Your task to perform on an android device: What's on the menu at Panera? Image 0: 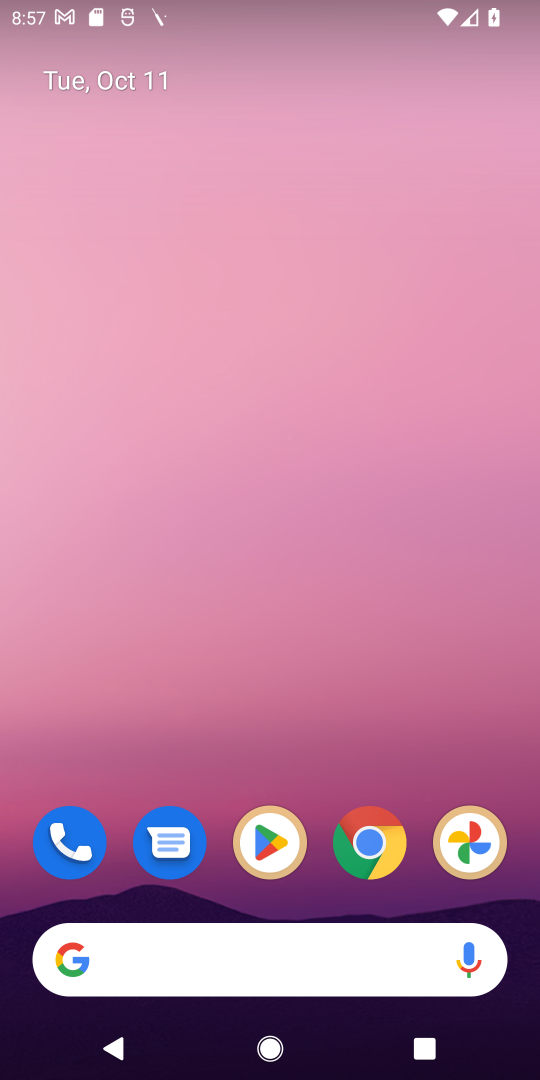
Step 0: click (383, 867)
Your task to perform on an android device: What's on the menu at Panera? Image 1: 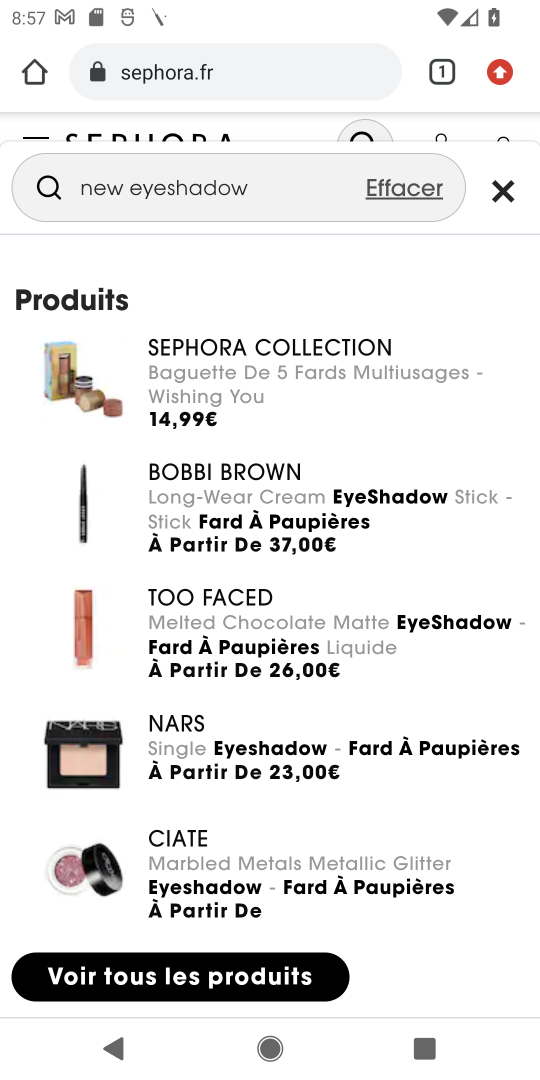
Step 1: click (159, 70)
Your task to perform on an android device: What's on the menu at Panera? Image 2: 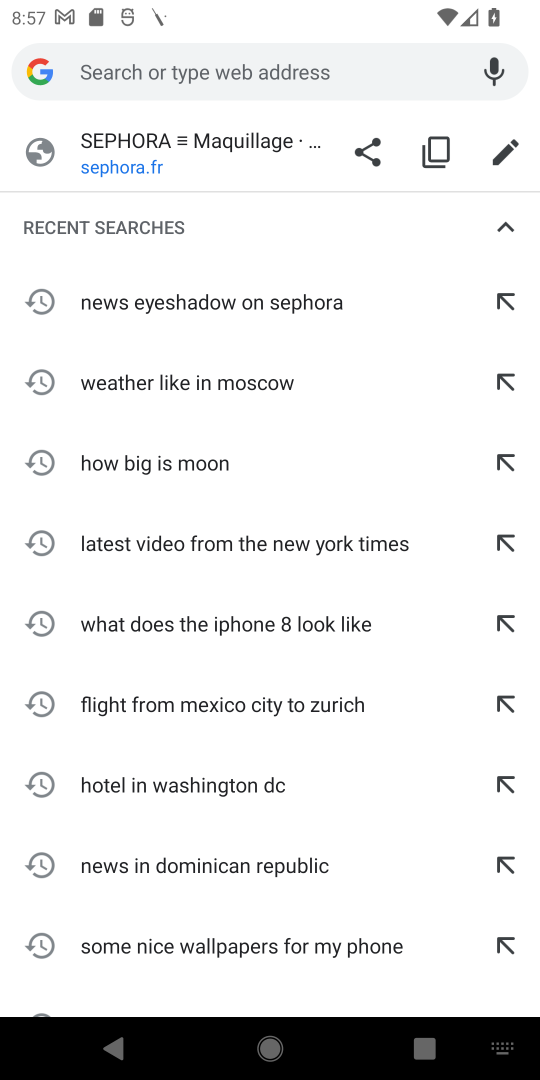
Step 2: type "menu at panera"
Your task to perform on an android device: What's on the menu at Panera? Image 3: 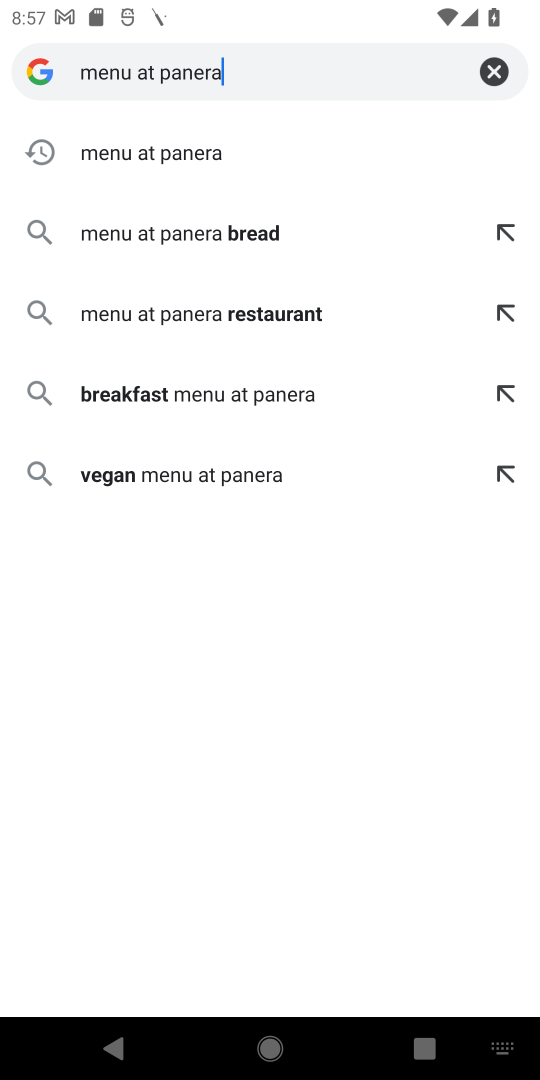
Step 3: click (200, 153)
Your task to perform on an android device: What's on the menu at Panera? Image 4: 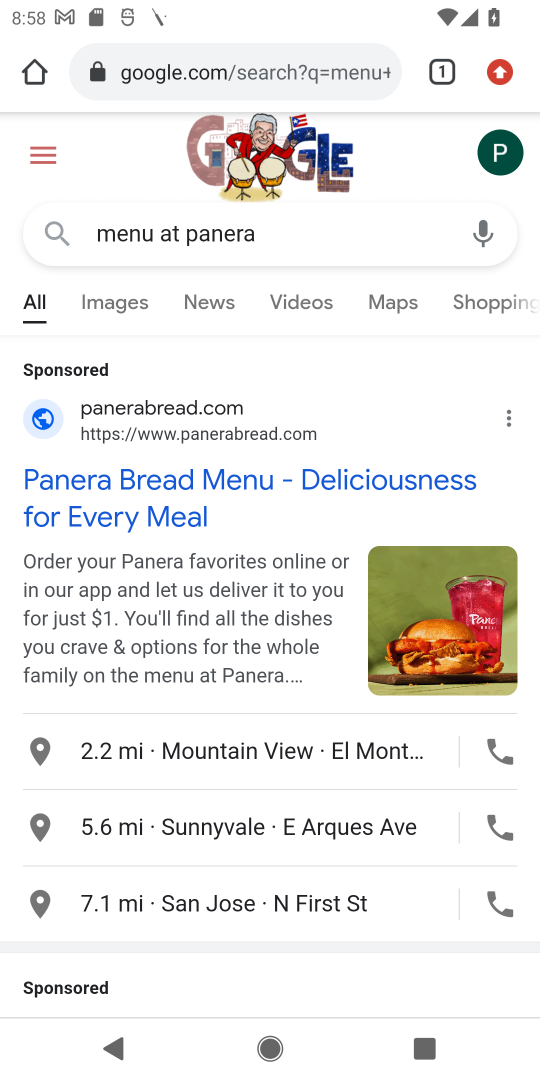
Step 4: drag from (172, 676) to (290, 232)
Your task to perform on an android device: What's on the menu at Panera? Image 5: 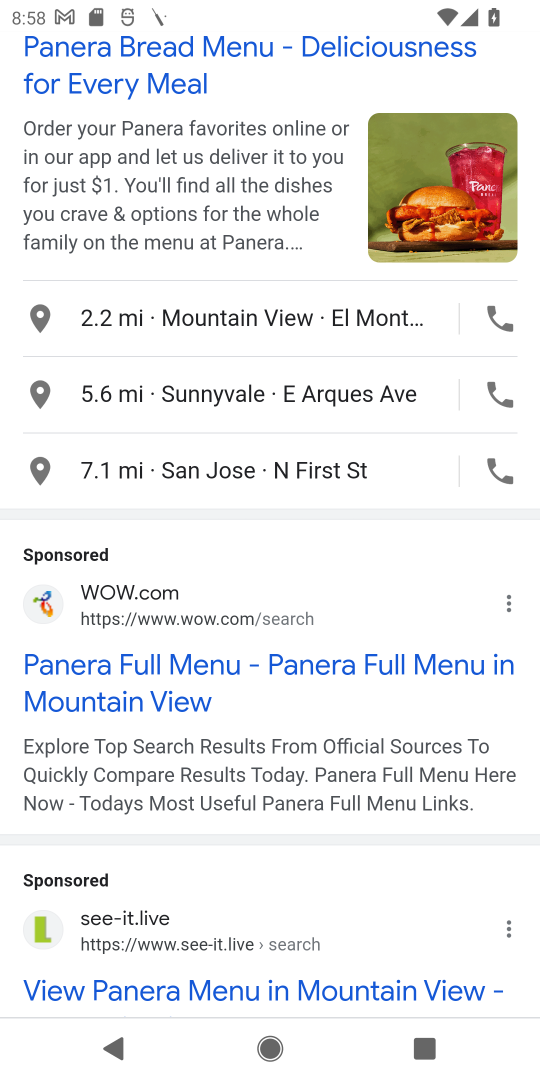
Step 5: click (136, 665)
Your task to perform on an android device: What's on the menu at Panera? Image 6: 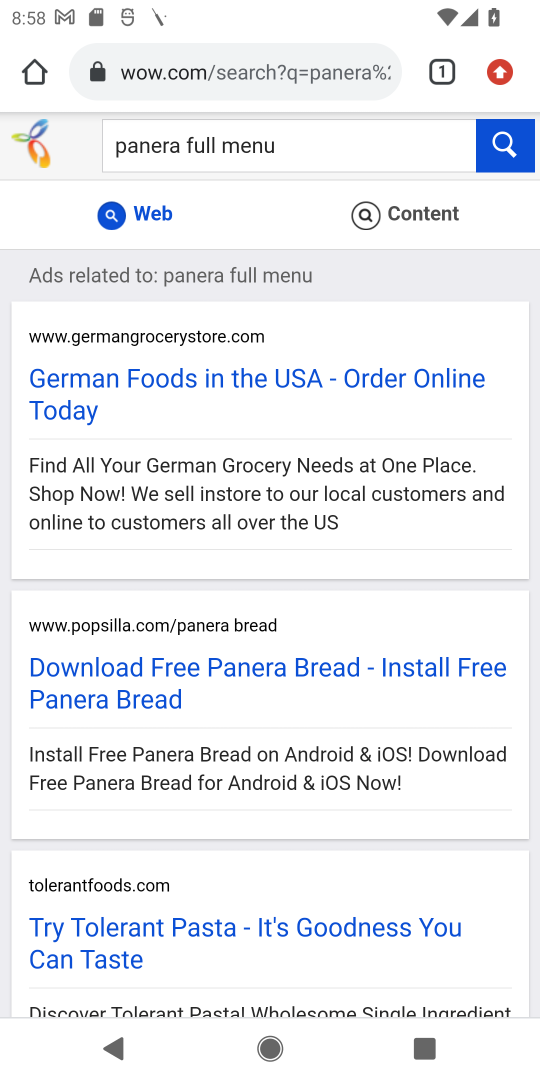
Step 6: drag from (192, 733) to (329, 288)
Your task to perform on an android device: What's on the menu at Panera? Image 7: 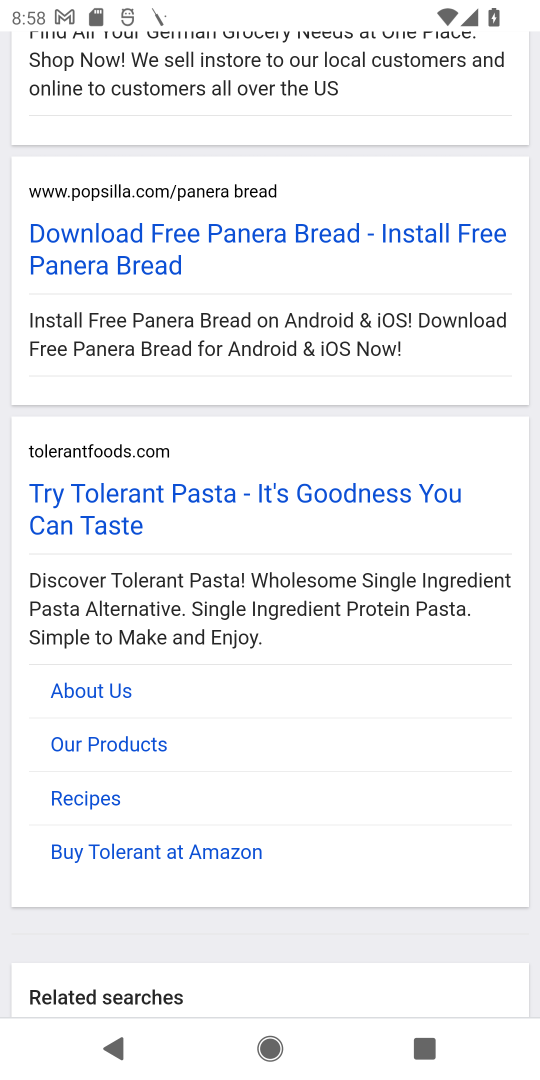
Step 7: drag from (366, 514) to (446, 164)
Your task to perform on an android device: What's on the menu at Panera? Image 8: 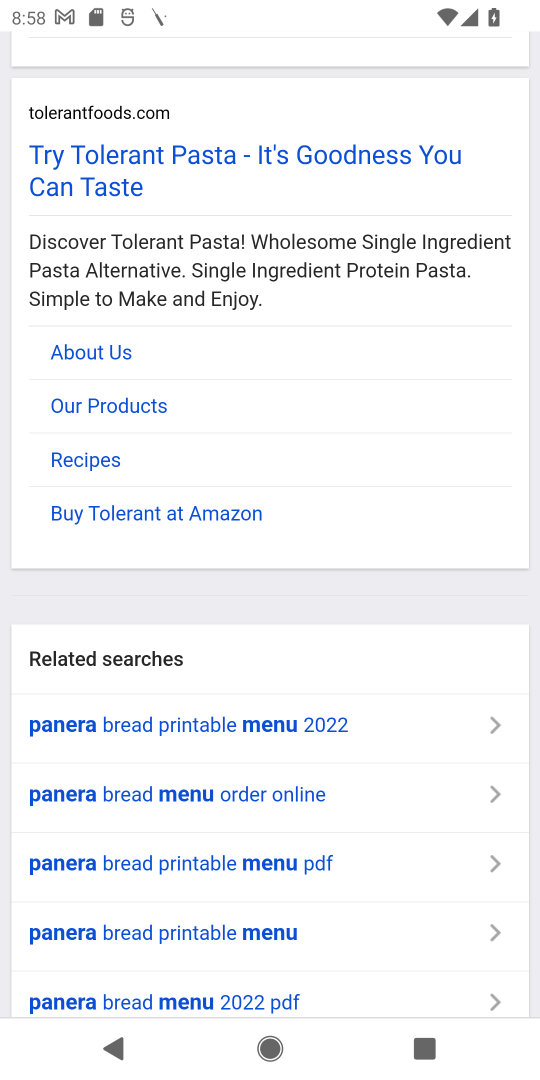
Step 8: drag from (354, 392) to (335, 977)
Your task to perform on an android device: What's on the menu at Panera? Image 9: 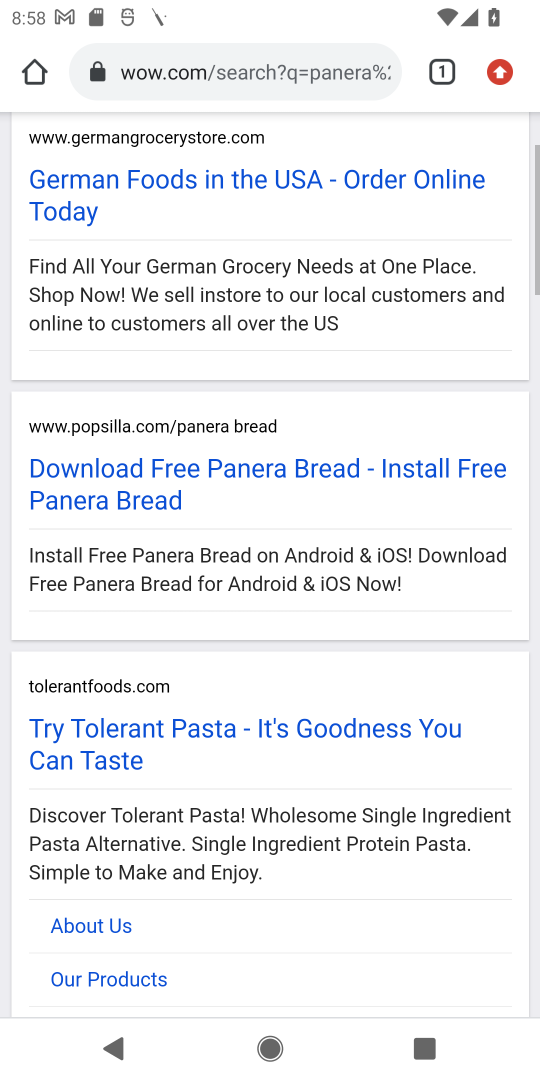
Step 9: drag from (240, 389) to (333, 1043)
Your task to perform on an android device: What's on the menu at Panera? Image 10: 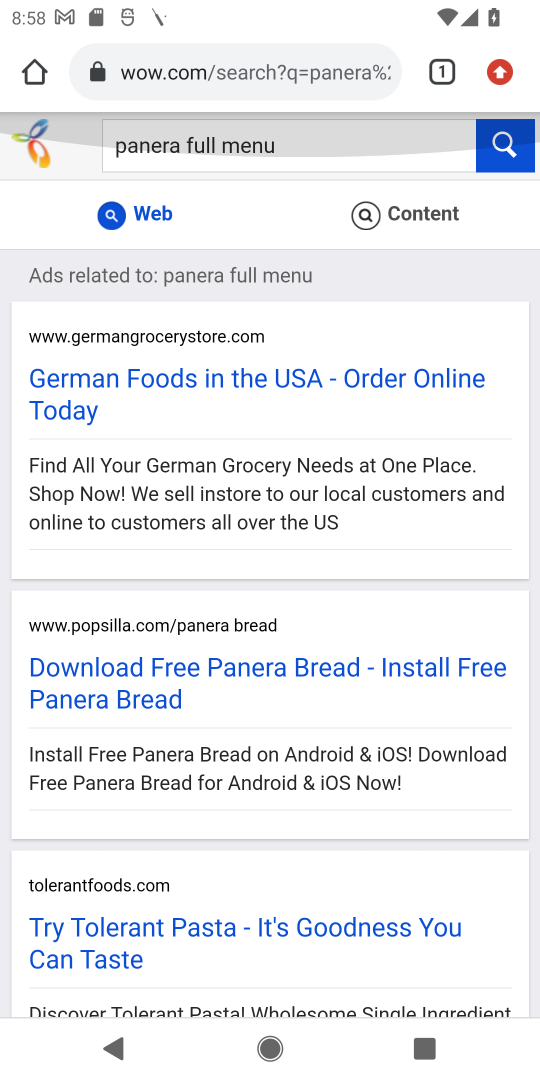
Step 10: drag from (206, 271) to (270, 850)
Your task to perform on an android device: What's on the menu at Panera? Image 11: 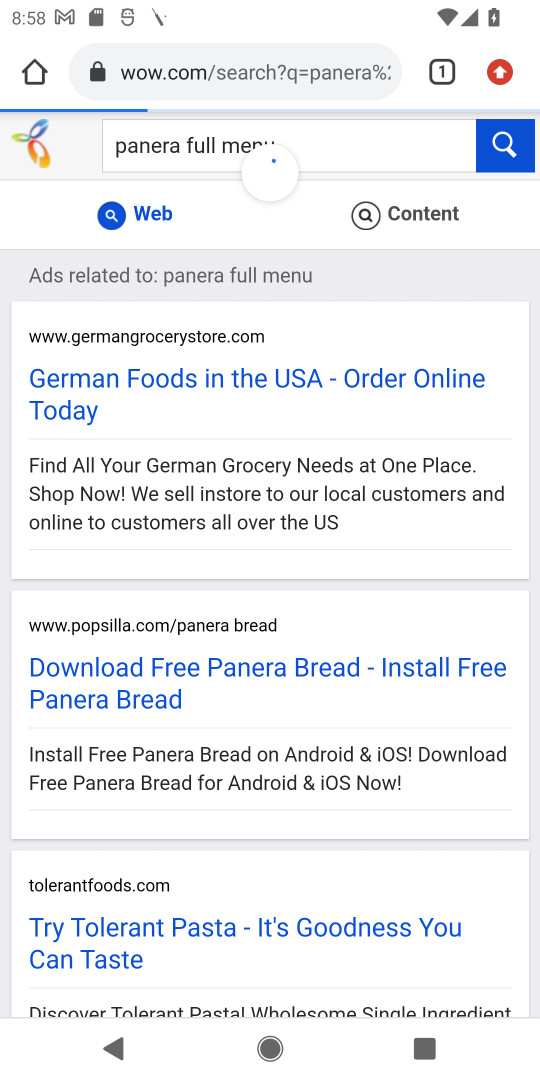
Step 11: drag from (183, 444) to (192, 899)
Your task to perform on an android device: What's on the menu at Panera? Image 12: 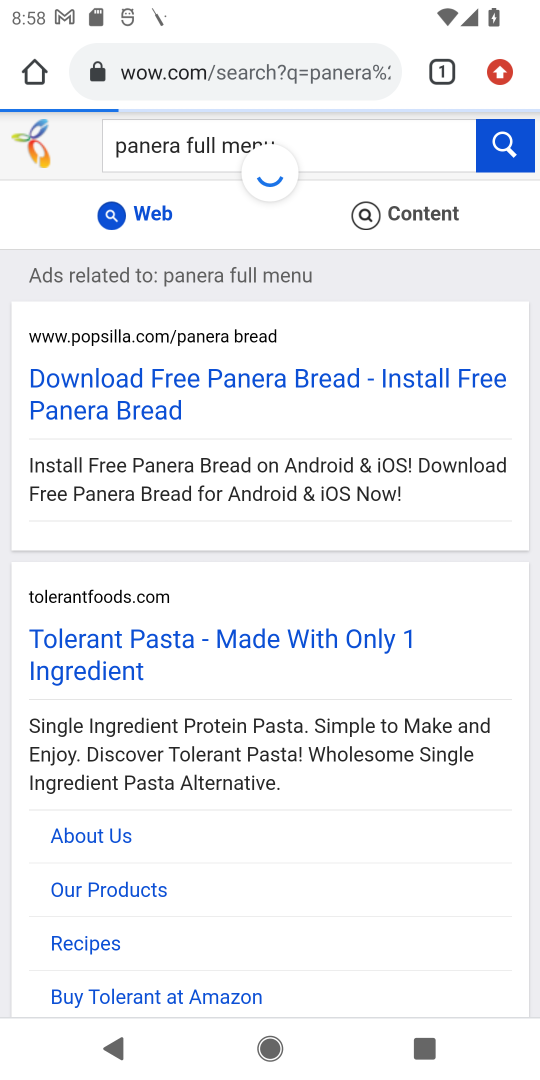
Step 12: drag from (164, 713) to (214, 461)
Your task to perform on an android device: What's on the menu at Panera? Image 13: 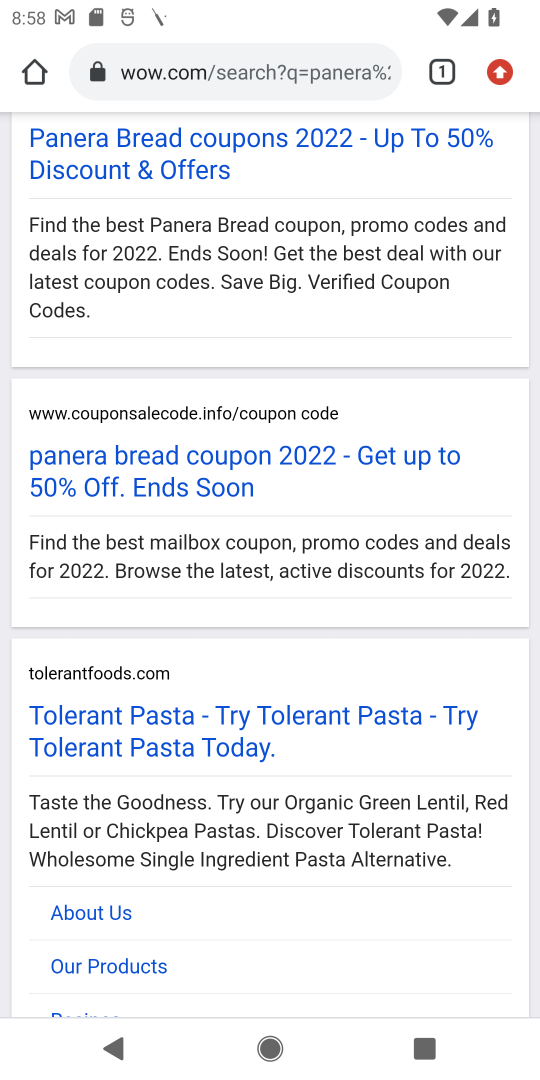
Step 13: drag from (231, 441) to (265, 949)
Your task to perform on an android device: What's on the menu at Panera? Image 14: 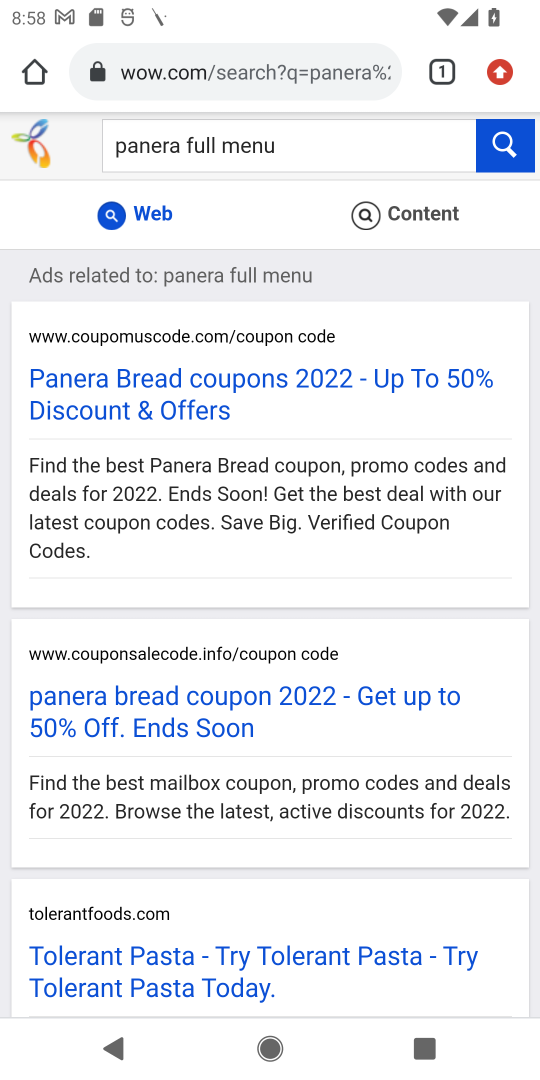
Step 14: click (135, 376)
Your task to perform on an android device: What's on the menu at Panera? Image 15: 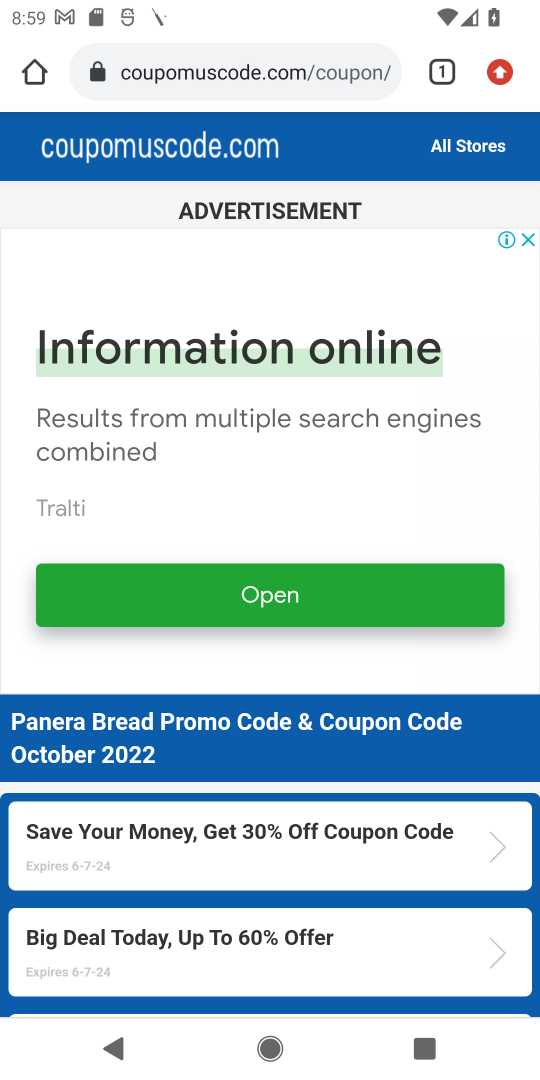
Step 15: drag from (282, 496) to (315, 177)
Your task to perform on an android device: What's on the menu at Panera? Image 16: 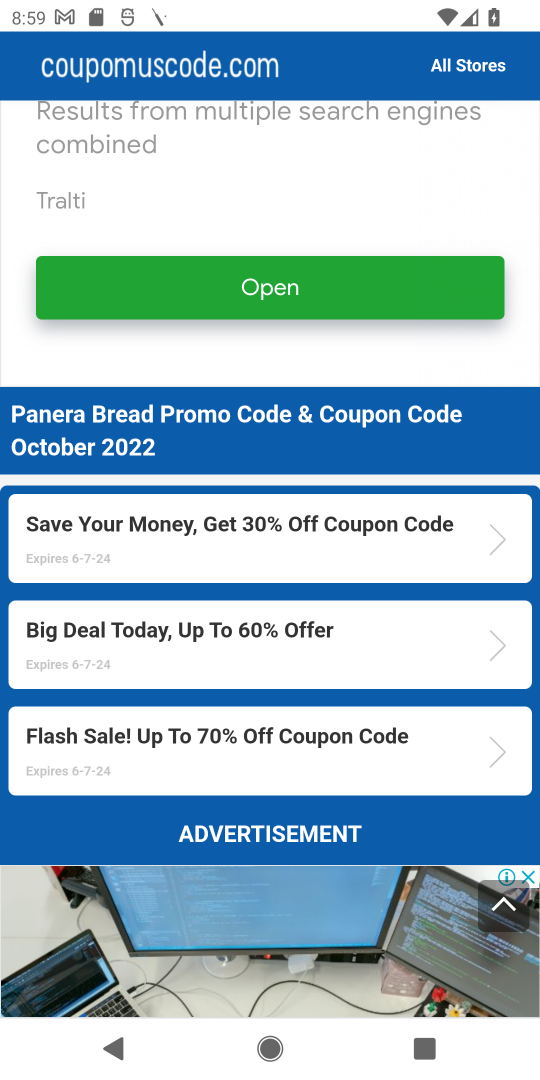
Step 16: drag from (455, 668) to (532, 246)
Your task to perform on an android device: What's on the menu at Panera? Image 17: 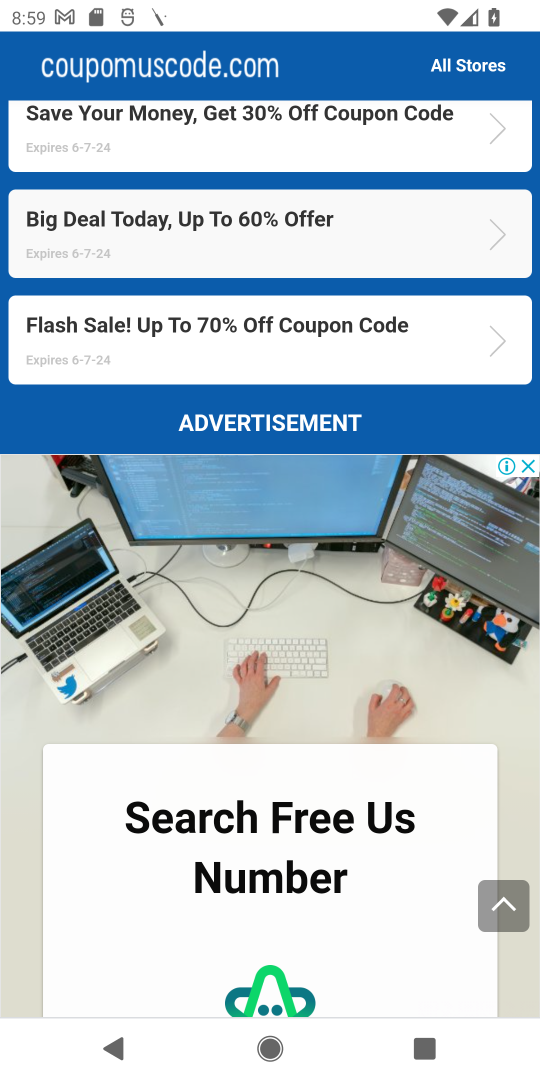
Step 17: drag from (250, 327) to (309, 887)
Your task to perform on an android device: What's on the menu at Panera? Image 18: 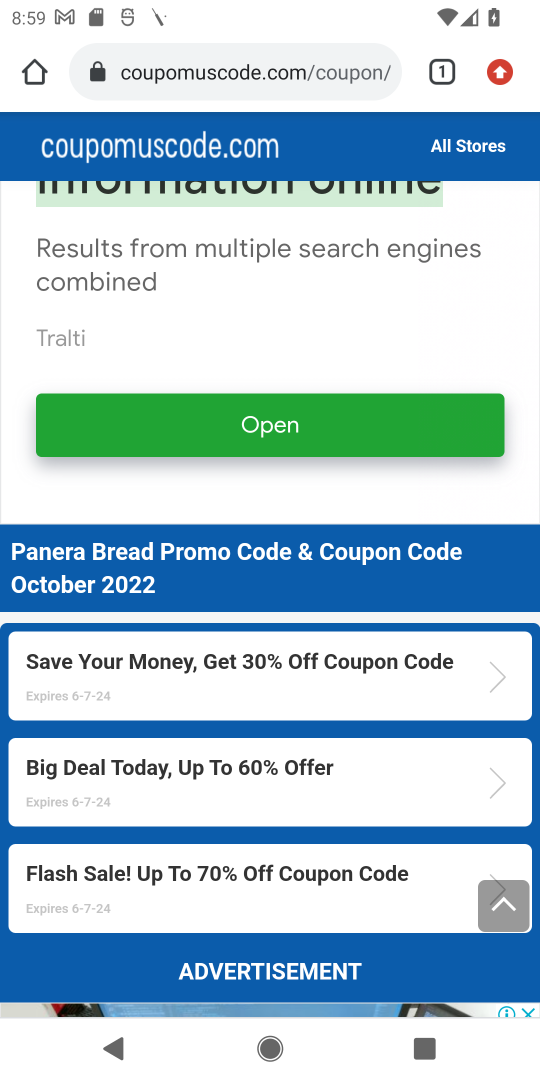
Step 18: drag from (287, 411) to (374, 1012)
Your task to perform on an android device: What's on the menu at Panera? Image 19: 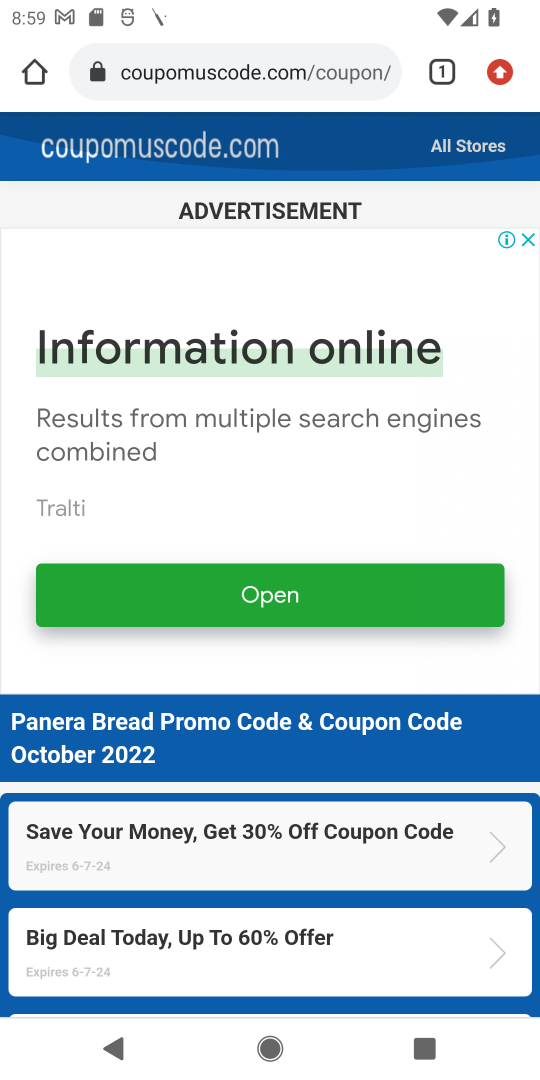
Step 19: click (249, 79)
Your task to perform on an android device: What's on the menu at Panera? Image 20: 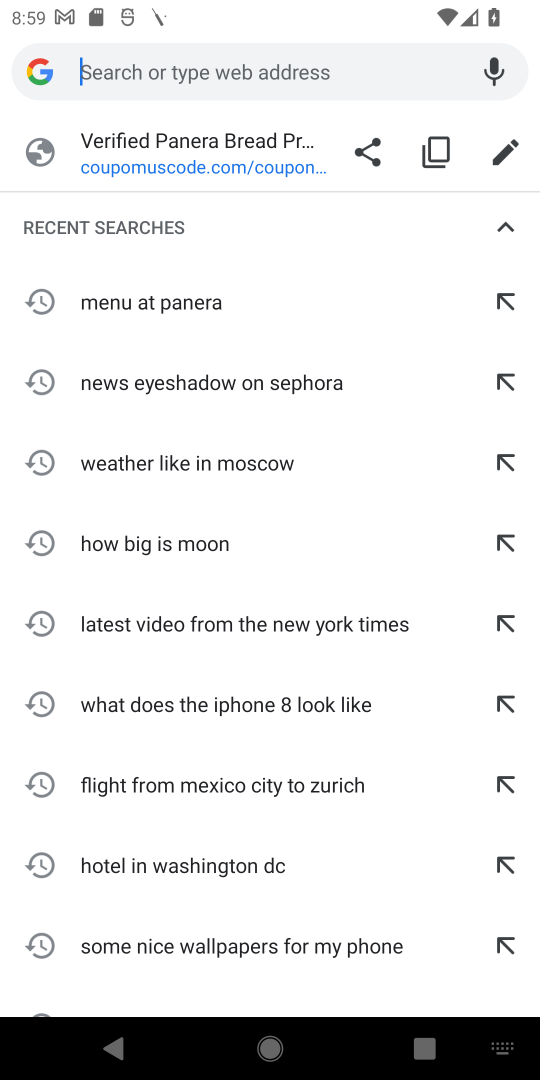
Step 20: type "menu at panera"
Your task to perform on an android device: What's on the menu at Panera? Image 21: 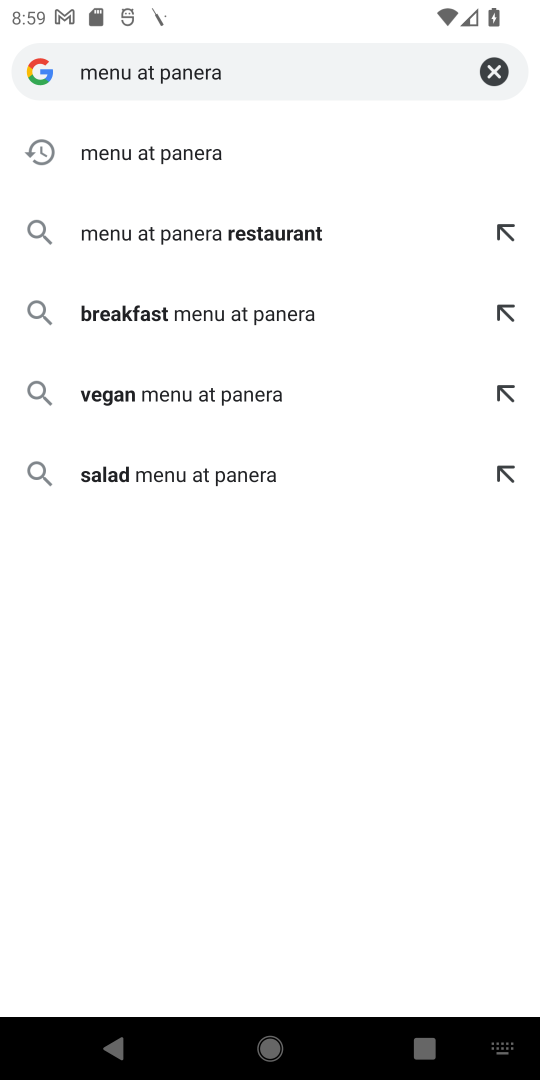
Step 21: click (181, 234)
Your task to perform on an android device: What's on the menu at Panera? Image 22: 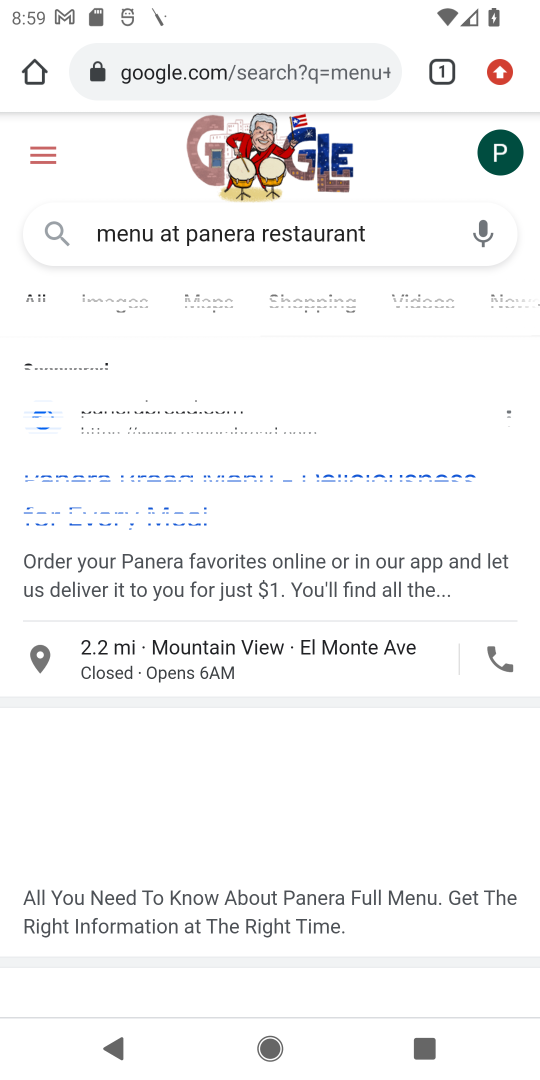
Step 22: click (197, 853)
Your task to perform on an android device: What's on the menu at Panera? Image 23: 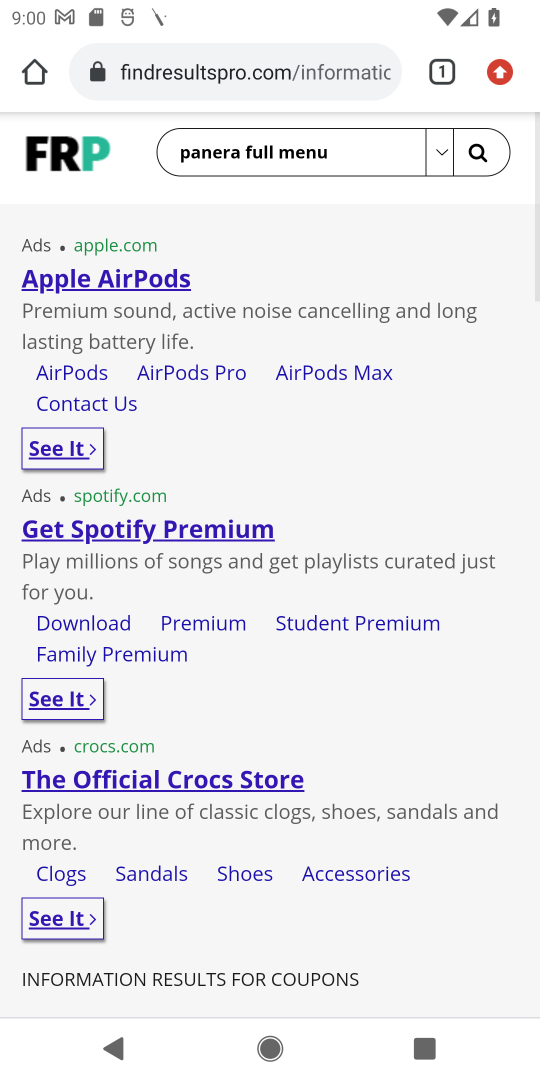
Step 23: task complete